Your task to perform on an android device: open chrome and create a bookmark for the current page Image 0: 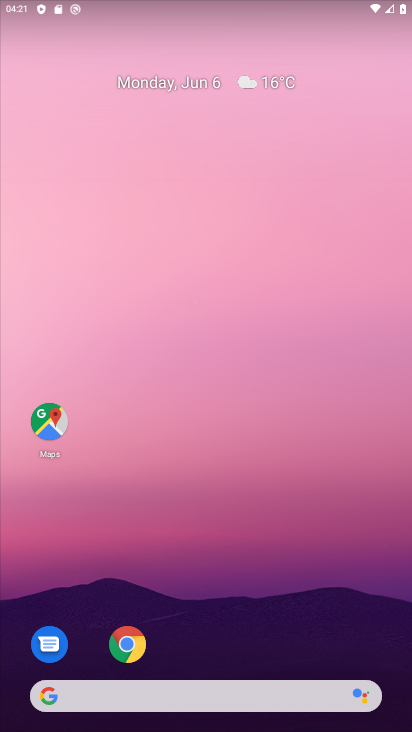
Step 0: click (129, 641)
Your task to perform on an android device: open chrome and create a bookmark for the current page Image 1: 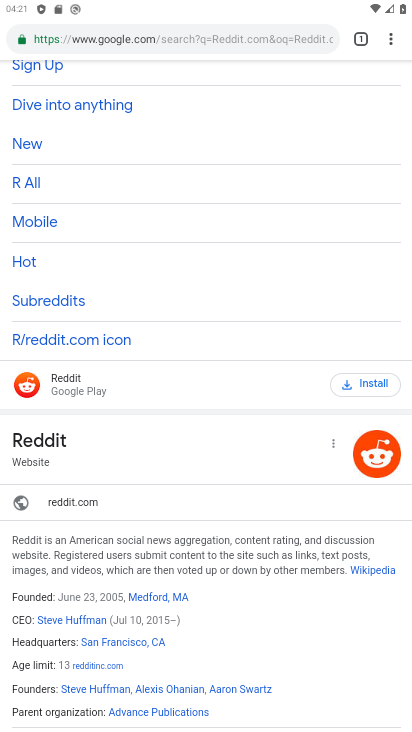
Step 1: click (390, 31)
Your task to perform on an android device: open chrome and create a bookmark for the current page Image 2: 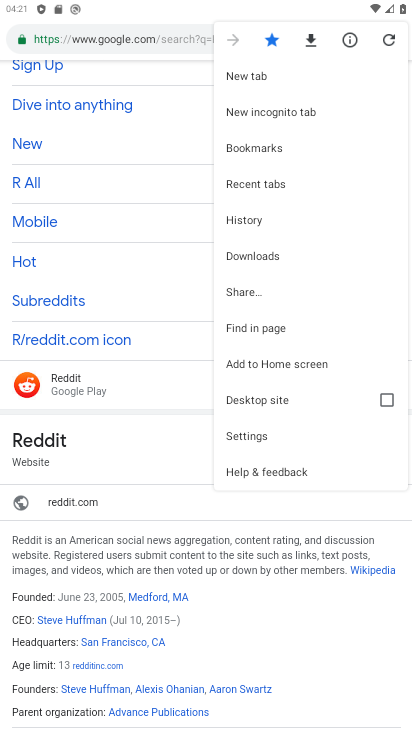
Step 2: click (235, 435)
Your task to perform on an android device: open chrome and create a bookmark for the current page Image 3: 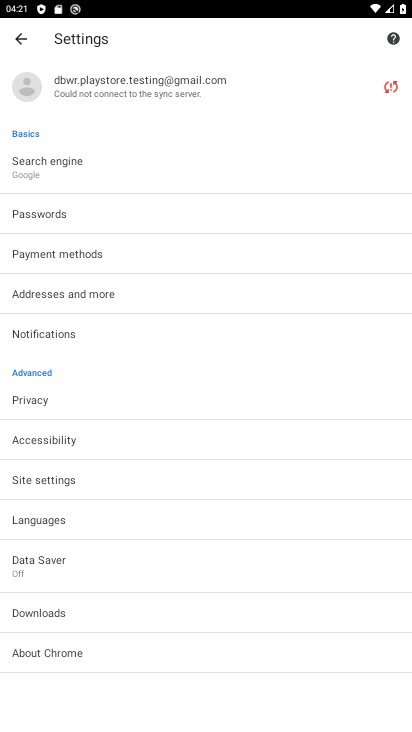
Step 3: click (19, 40)
Your task to perform on an android device: open chrome and create a bookmark for the current page Image 4: 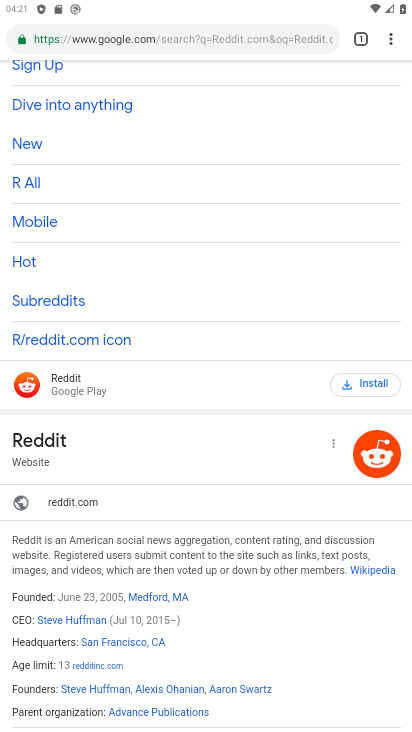
Step 4: click (388, 37)
Your task to perform on an android device: open chrome and create a bookmark for the current page Image 5: 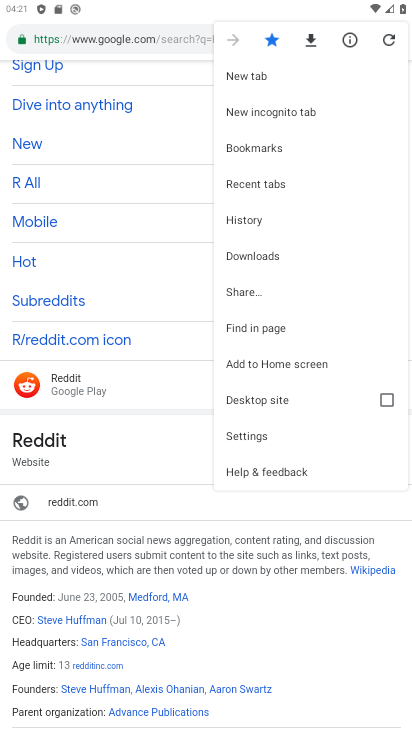
Step 5: click (254, 149)
Your task to perform on an android device: open chrome and create a bookmark for the current page Image 6: 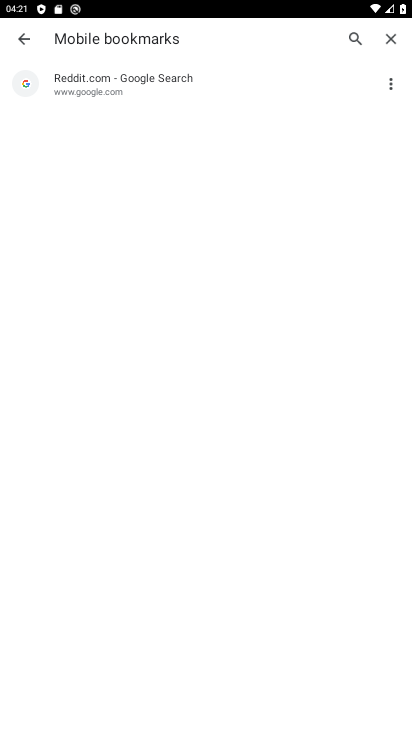
Step 6: task complete